Your task to perform on an android device: star an email in the gmail app Image 0: 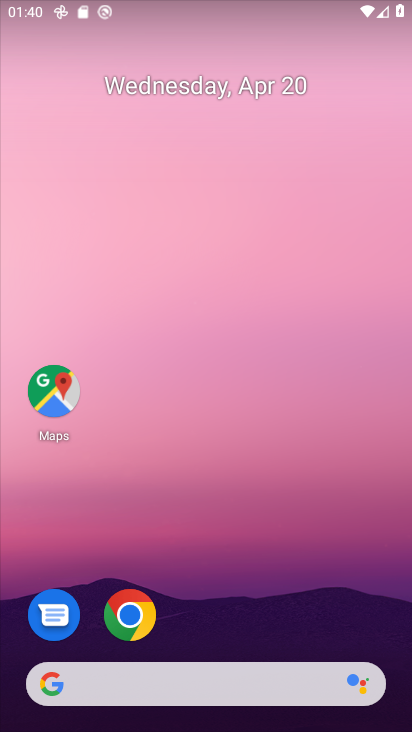
Step 0: drag from (396, 338) to (405, 205)
Your task to perform on an android device: star an email in the gmail app Image 1: 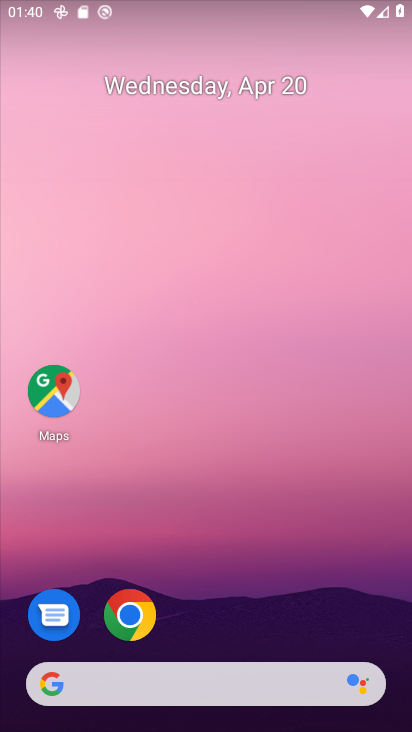
Step 1: drag from (368, 339) to (359, 255)
Your task to perform on an android device: star an email in the gmail app Image 2: 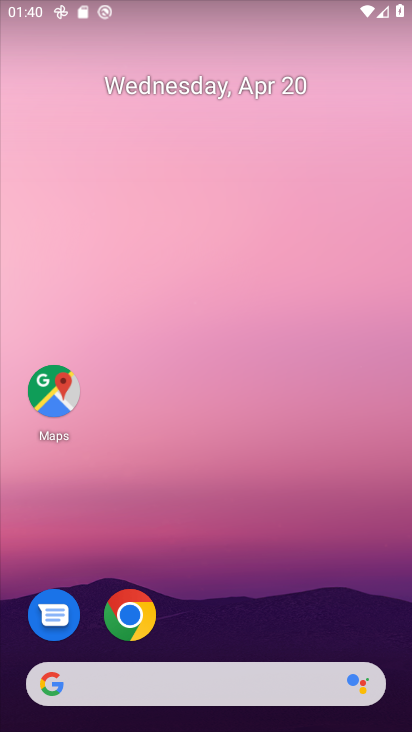
Step 2: drag from (386, 617) to (362, 120)
Your task to perform on an android device: star an email in the gmail app Image 3: 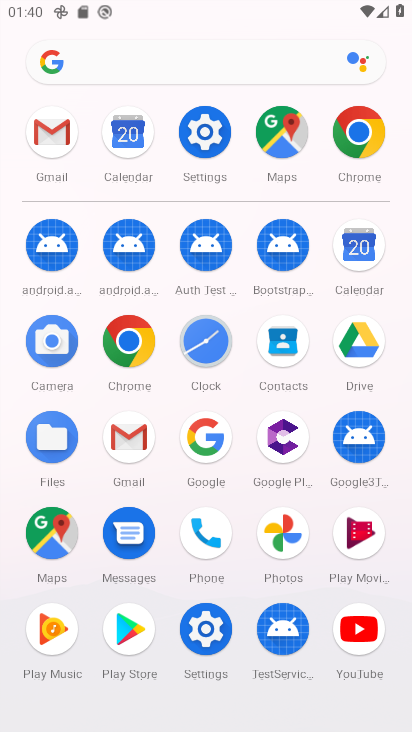
Step 3: click (39, 138)
Your task to perform on an android device: star an email in the gmail app Image 4: 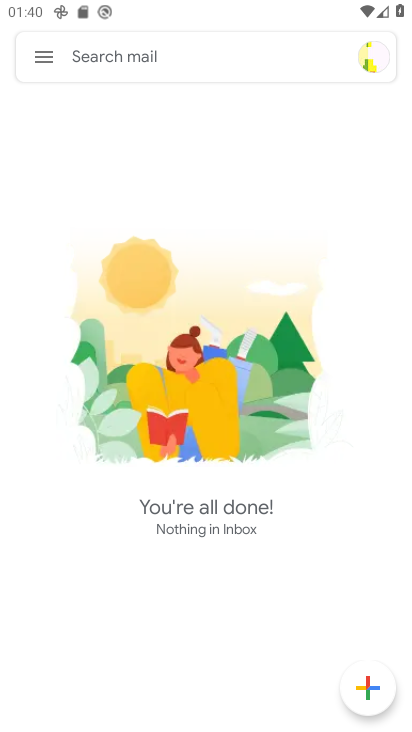
Step 4: click (38, 60)
Your task to perform on an android device: star an email in the gmail app Image 5: 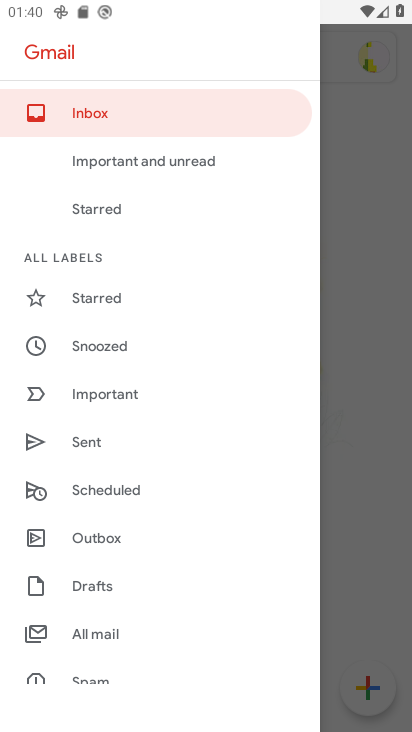
Step 5: click (96, 106)
Your task to perform on an android device: star an email in the gmail app Image 6: 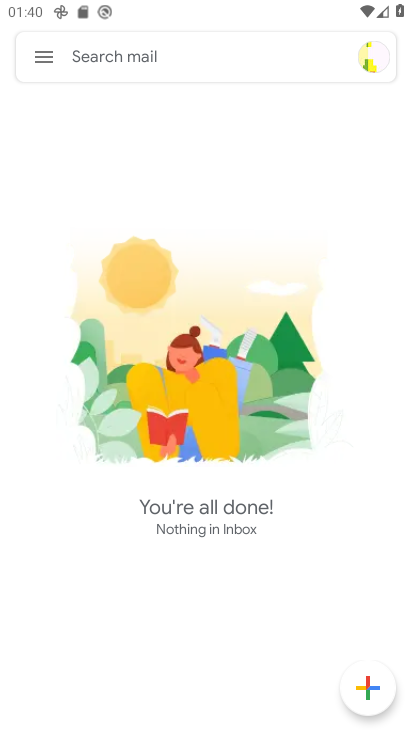
Step 6: task complete